Your task to perform on an android device: change notification settings in the gmail app Image 0: 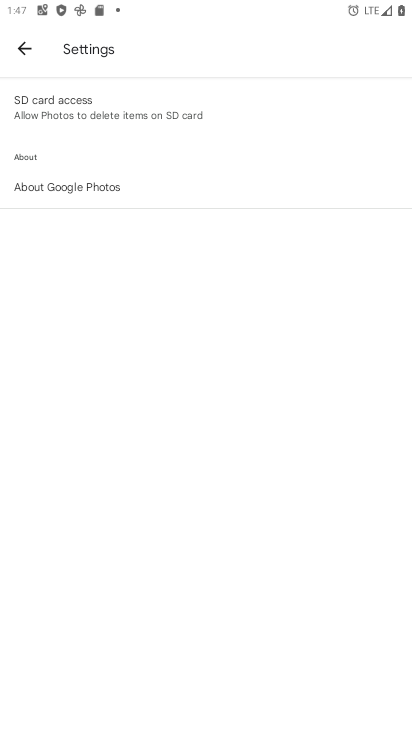
Step 0: press home button
Your task to perform on an android device: change notification settings in the gmail app Image 1: 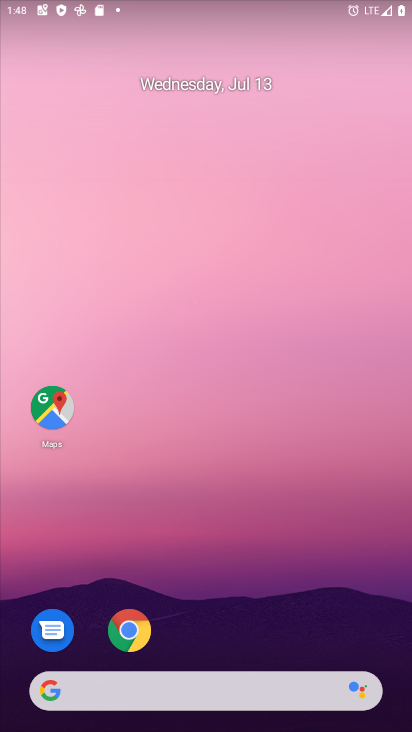
Step 1: drag from (386, 481) to (310, 19)
Your task to perform on an android device: change notification settings in the gmail app Image 2: 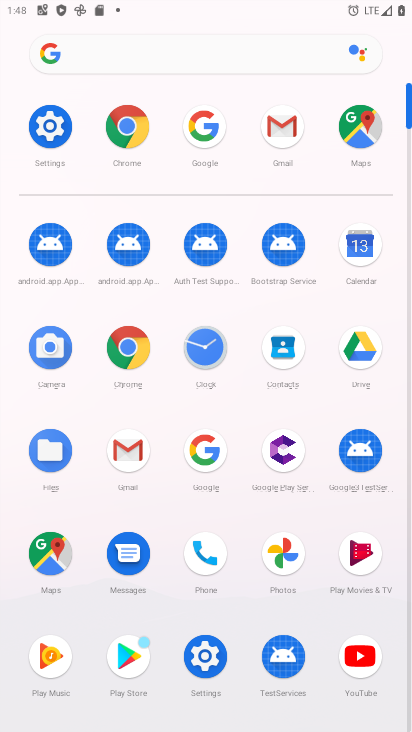
Step 2: click (280, 125)
Your task to perform on an android device: change notification settings in the gmail app Image 3: 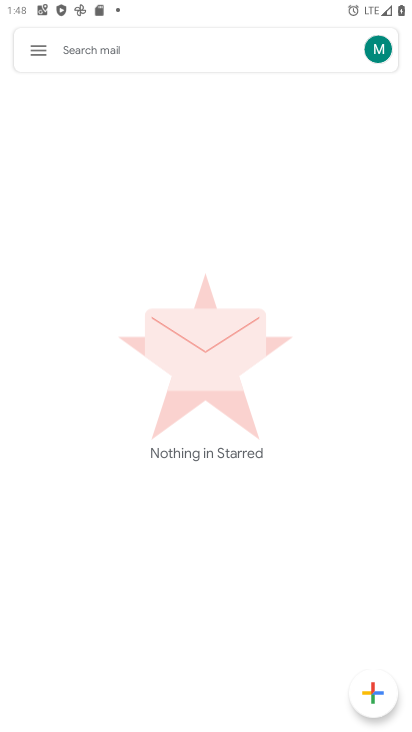
Step 3: click (26, 45)
Your task to perform on an android device: change notification settings in the gmail app Image 4: 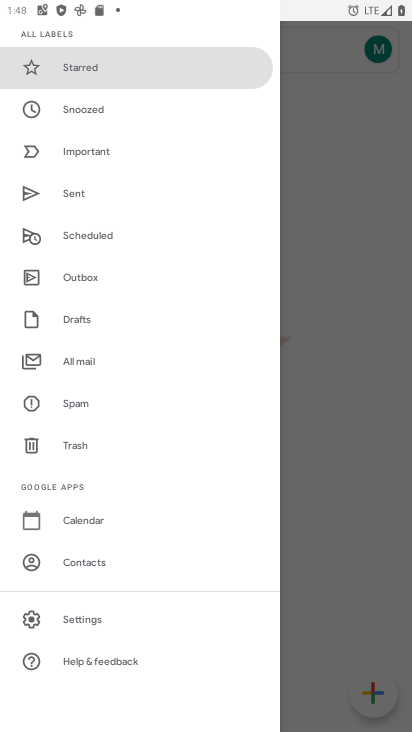
Step 4: click (96, 628)
Your task to perform on an android device: change notification settings in the gmail app Image 5: 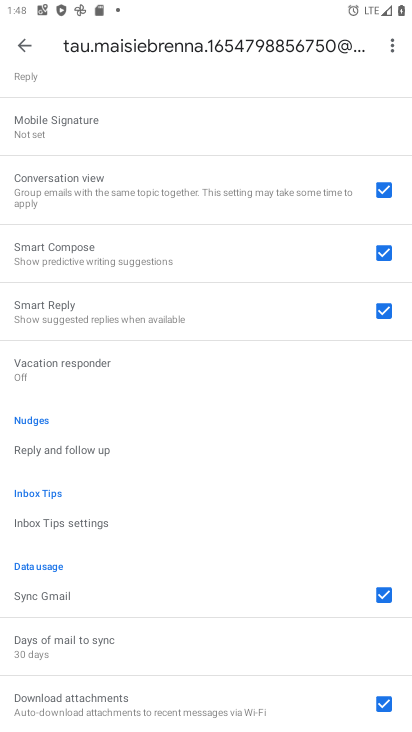
Step 5: task complete